Your task to perform on an android device: Turn on the flashlight Image 0: 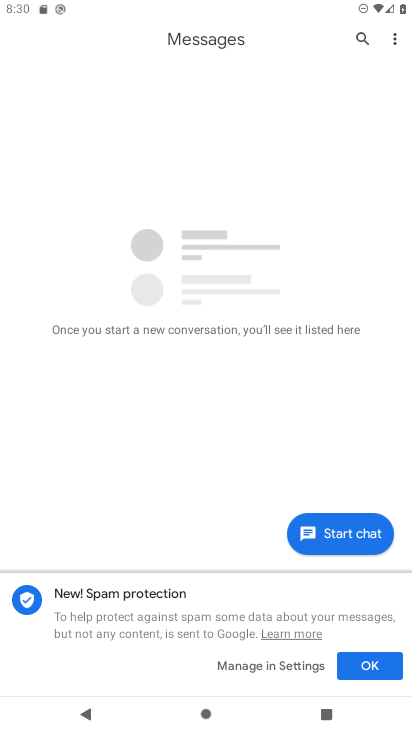
Step 0: press home button
Your task to perform on an android device: Turn on the flashlight Image 1: 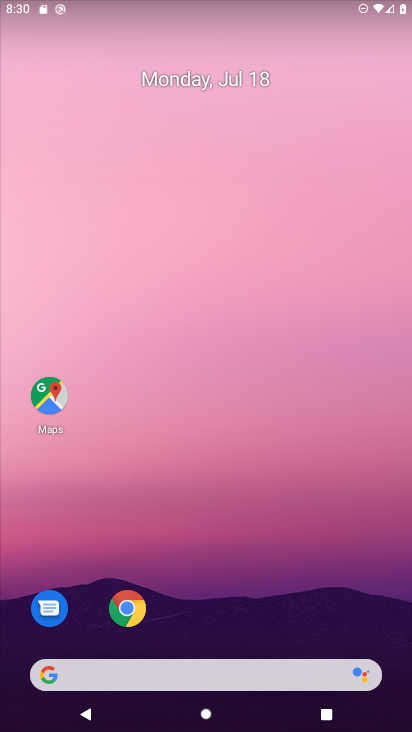
Step 1: drag from (258, 581) to (320, 0)
Your task to perform on an android device: Turn on the flashlight Image 2: 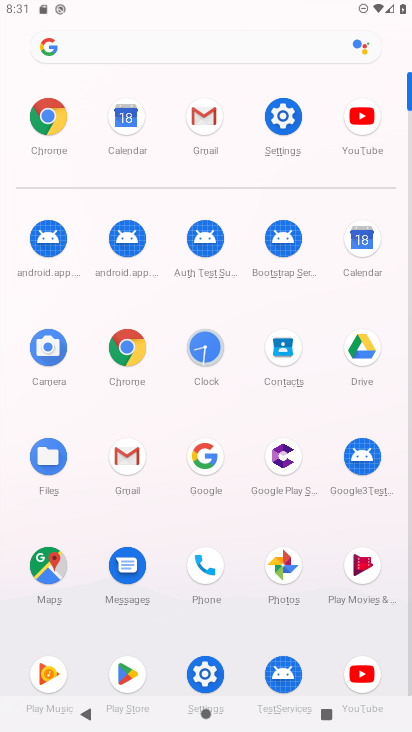
Step 2: click (281, 116)
Your task to perform on an android device: Turn on the flashlight Image 3: 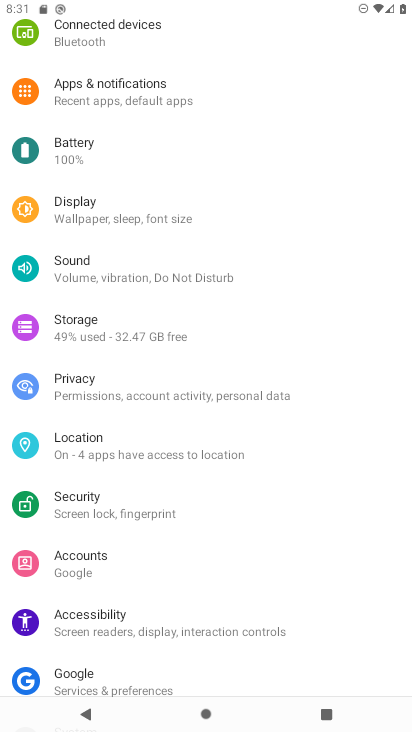
Step 3: task complete